Your task to perform on an android device: Go to Reddit.com Image 0: 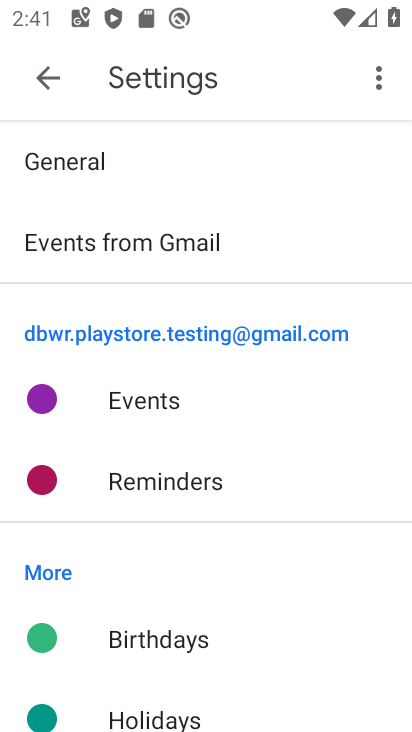
Step 0: press home button
Your task to perform on an android device: Go to Reddit.com Image 1: 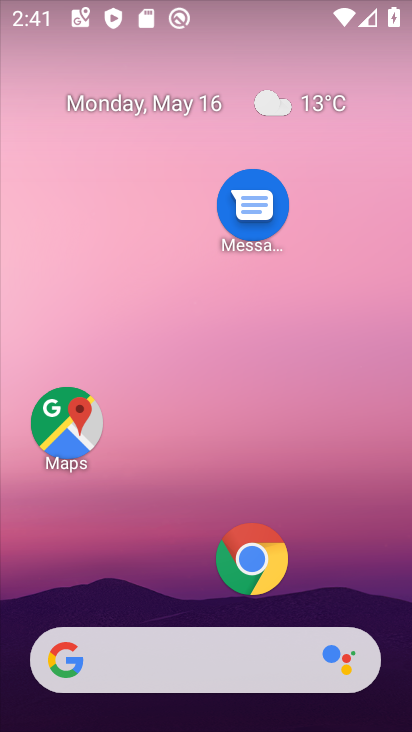
Step 1: click (238, 565)
Your task to perform on an android device: Go to Reddit.com Image 2: 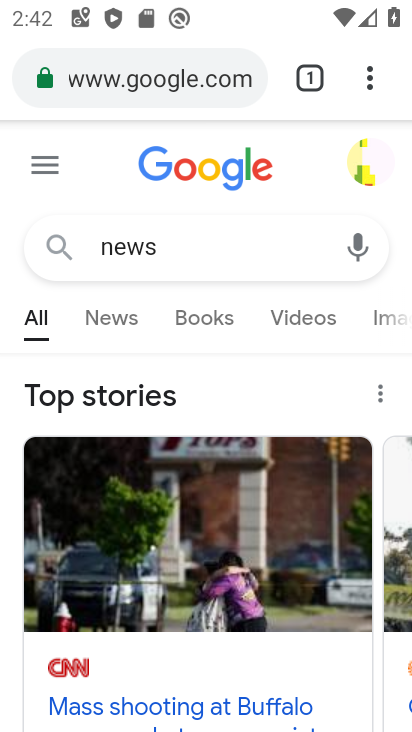
Step 2: click (154, 73)
Your task to perform on an android device: Go to Reddit.com Image 3: 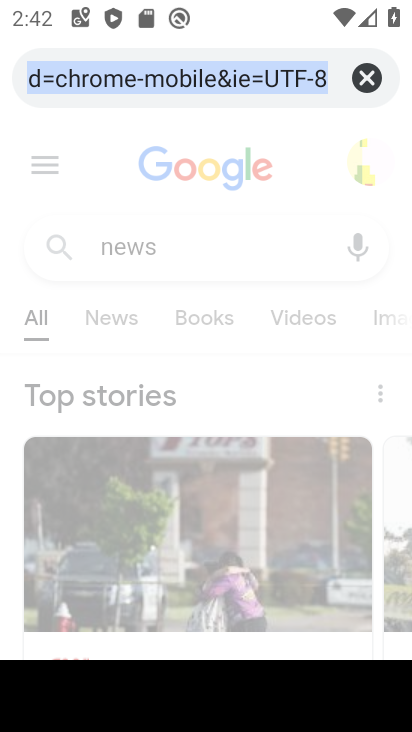
Step 3: type "Reddit.com"
Your task to perform on an android device: Go to Reddit.com Image 4: 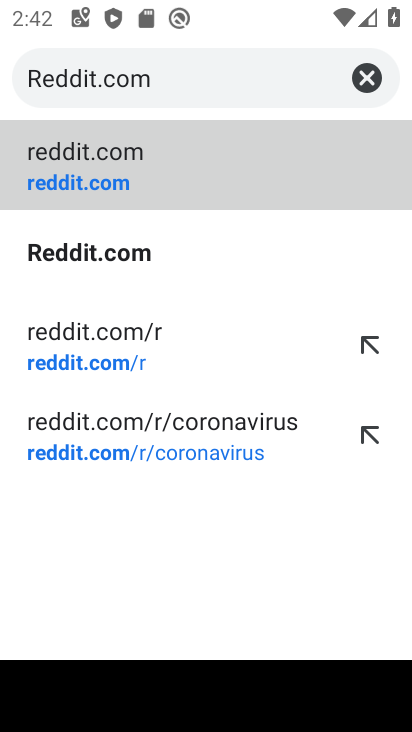
Step 4: click (81, 158)
Your task to perform on an android device: Go to Reddit.com Image 5: 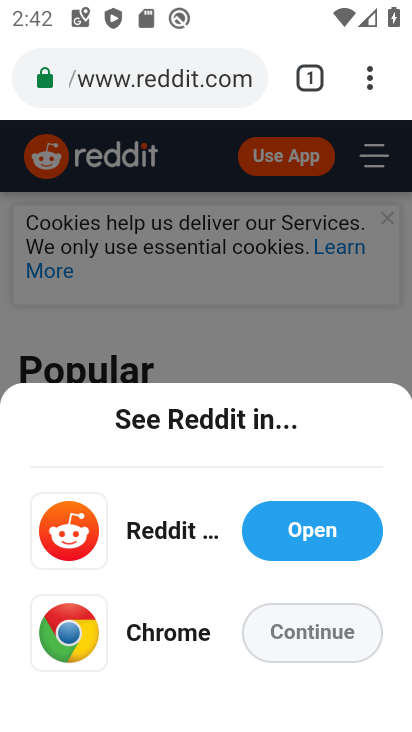
Step 5: task complete